Your task to perform on an android device: Open Android settings Image 0: 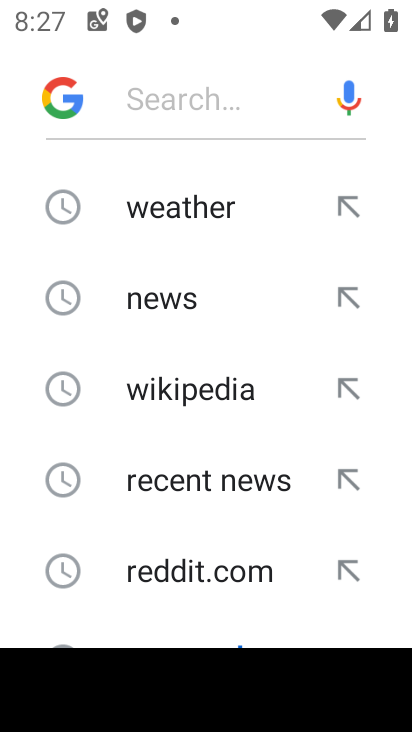
Step 0: press home button
Your task to perform on an android device: Open Android settings Image 1: 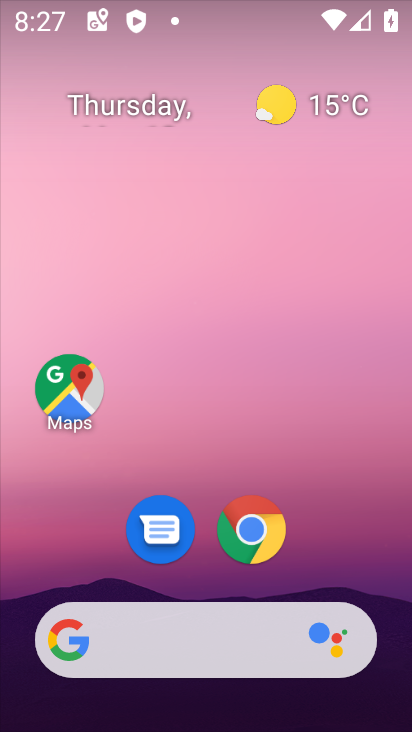
Step 1: drag from (268, 722) to (124, 42)
Your task to perform on an android device: Open Android settings Image 2: 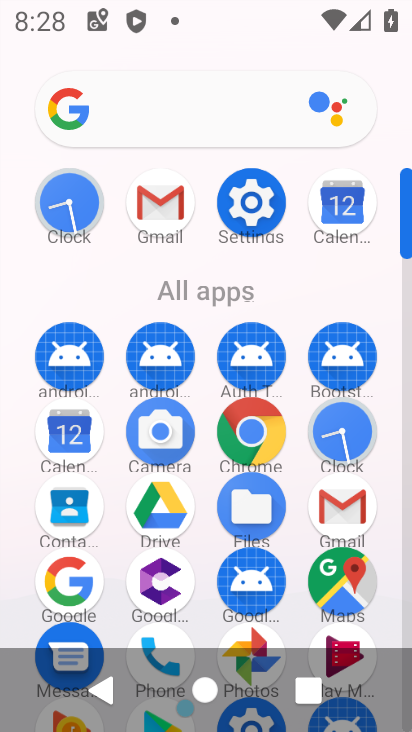
Step 2: click (264, 200)
Your task to perform on an android device: Open Android settings Image 3: 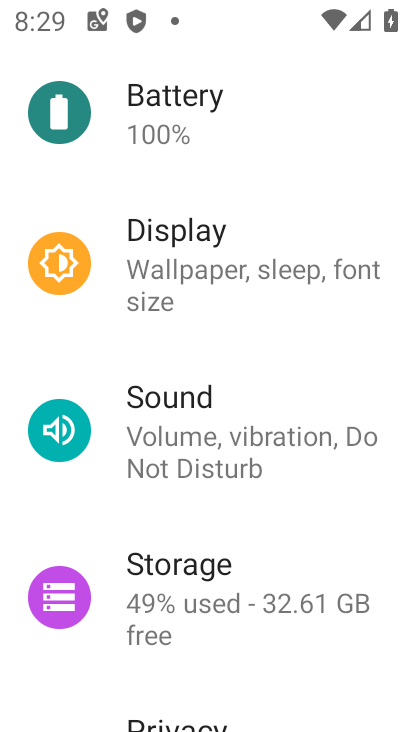
Step 3: drag from (195, 683) to (203, 11)
Your task to perform on an android device: Open Android settings Image 4: 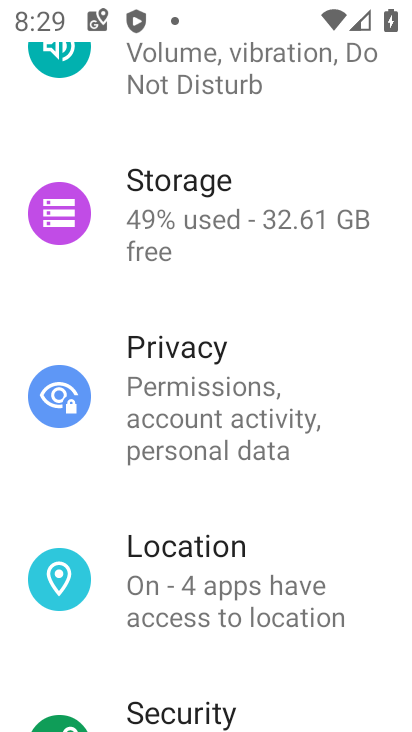
Step 4: drag from (269, 693) to (158, 48)
Your task to perform on an android device: Open Android settings Image 5: 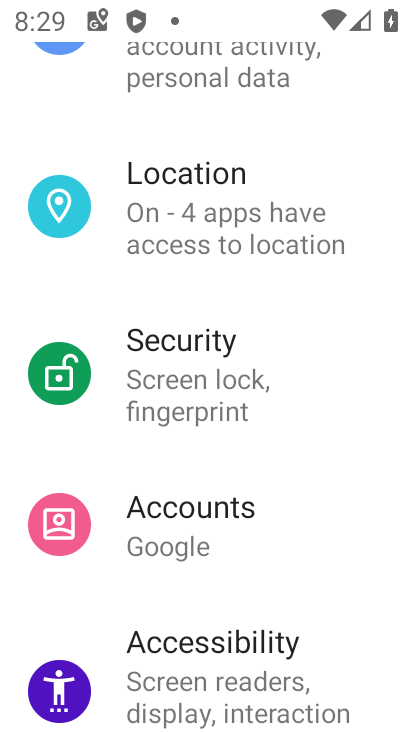
Step 5: drag from (290, 720) to (258, 91)
Your task to perform on an android device: Open Android settings Image 6: 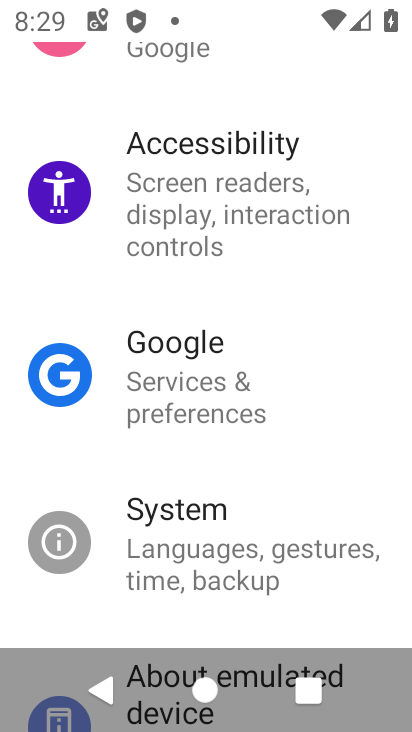
Step 6: drag from (279, 135) to (283, 22)
Your task to perform on an android device: Open Android settings Image 7: 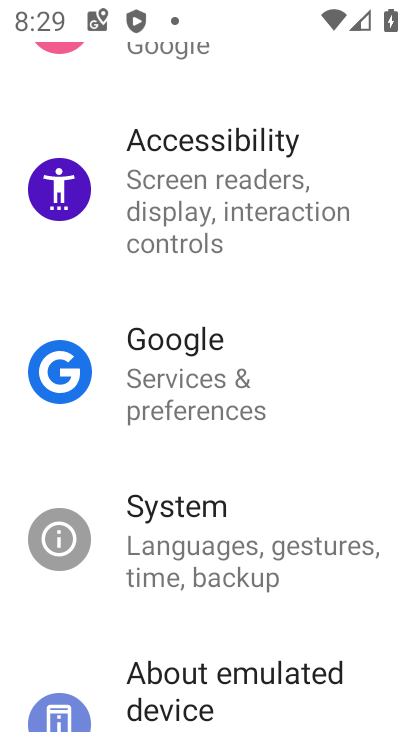
Step 7: click (226, 705)
Your task to perform on an android device: Open Android settings Image 8: 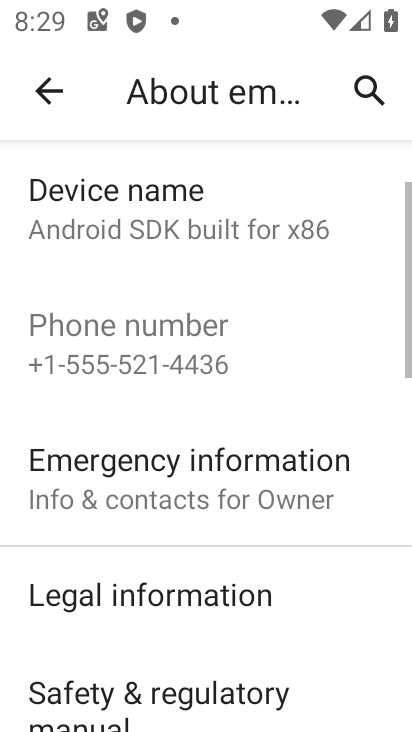
Step 8: task complete